Your task to perform on an android device: toggle location history Image 0: 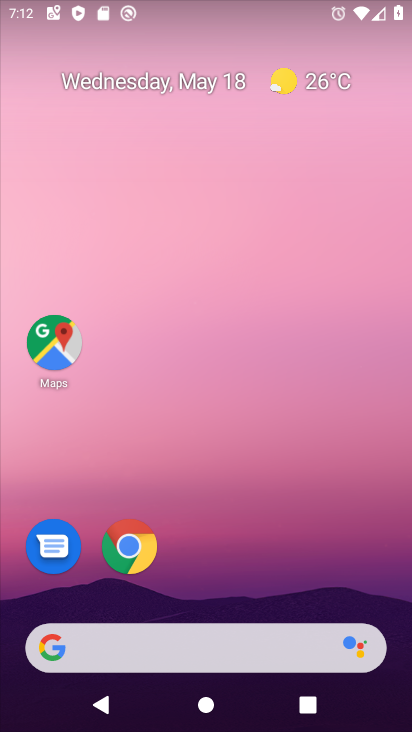
Step 0: drag from (398, 639) to (345, 67)
Your task to perform on an android device: toggle location history Image 1: 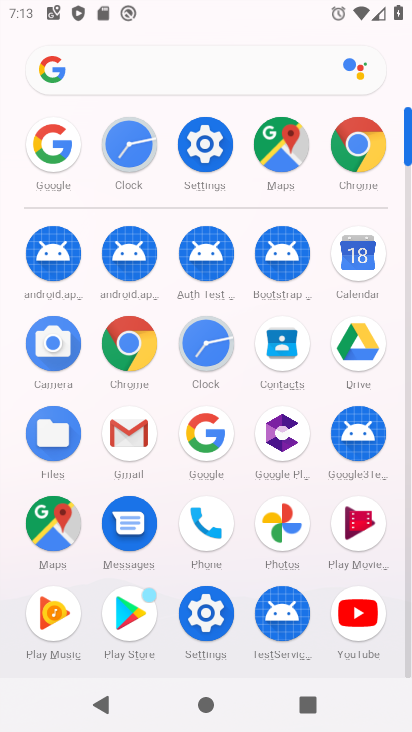
Step 1: click (219, 603)
Your task to perform on an android device: toggle location history Image 2: 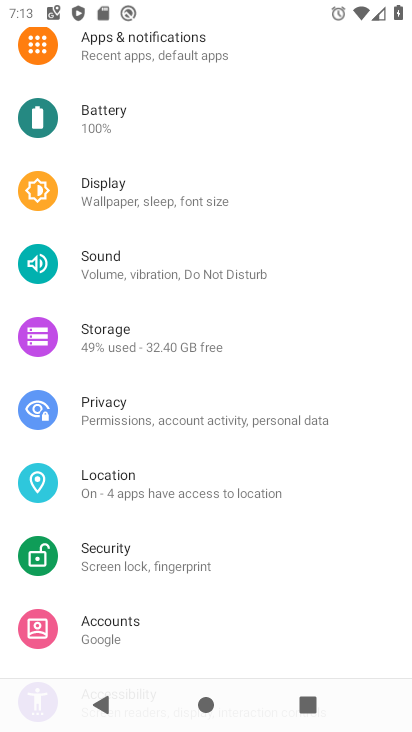
Step 2: click (127, 479)
Your task to perform on an android device: toggle location history Image 3: 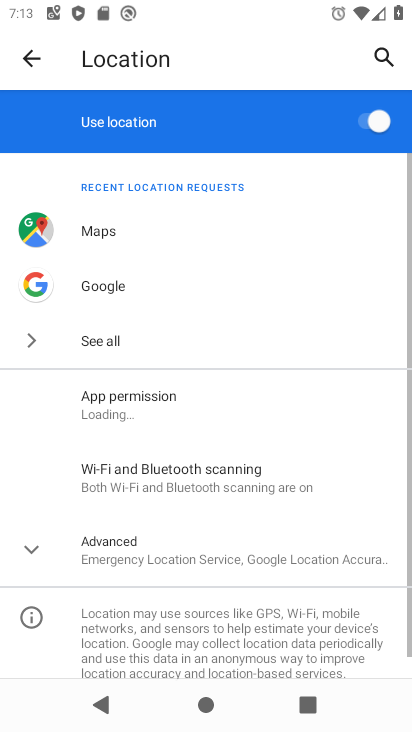
Step 3: click (114, 528)
Your task to perform on an android device: toggle location history Image 4: 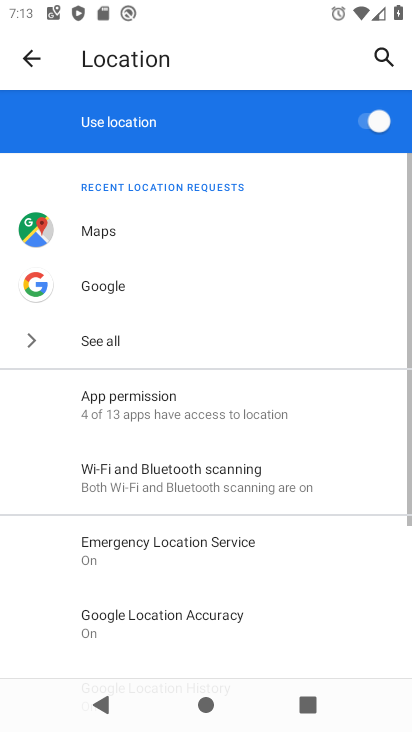
Step 4: drag from (224, 628) to (247, 215)
Your task to perform on an android device: toggle location history Image 5: 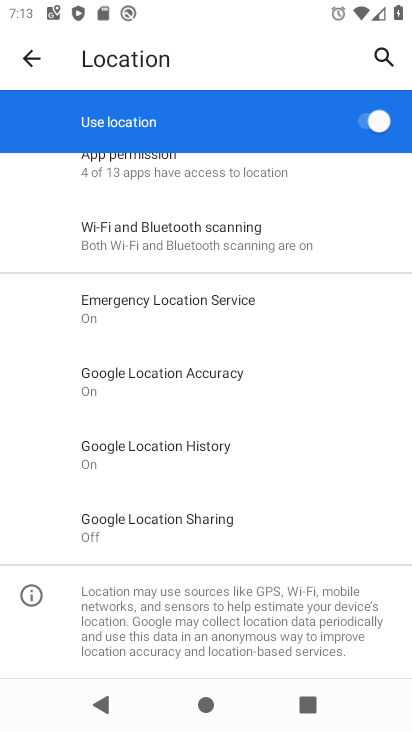
Step 5: click (189, 443)
Your task to perform on an android device: toggle location history Image 6: 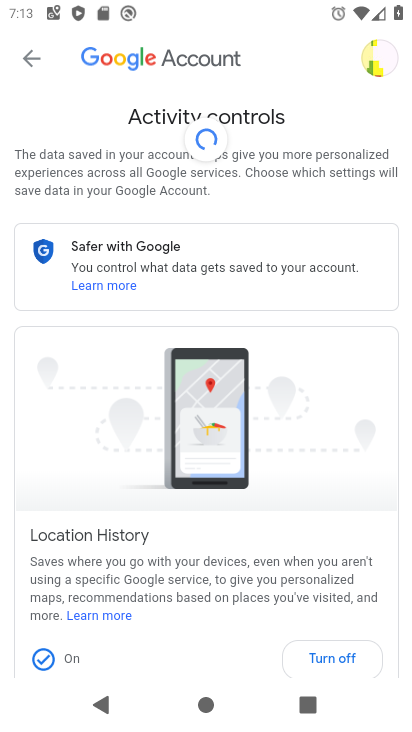
Step 6: click (360, 652)
Your task to perform on an android device: toggle location history Image 7: 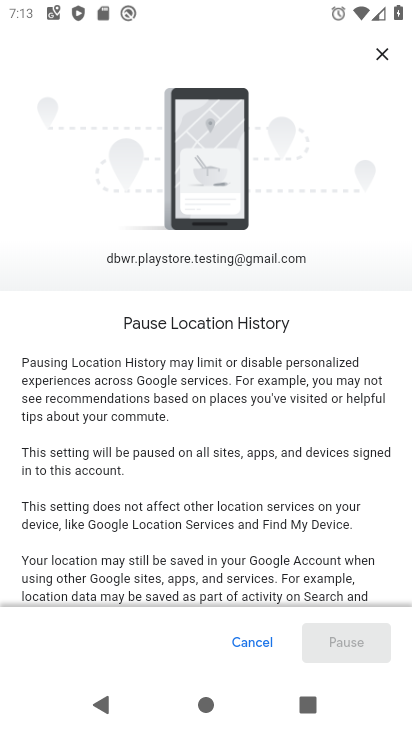
Step 7: task complete